Your task to perform on an android device: Open display settings Image 0: 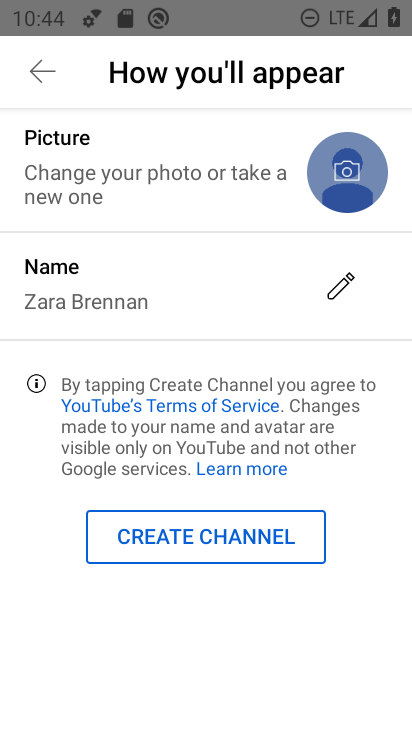
Step 0: press home button
Your task to perform on an android device: Open display settings Image 1: 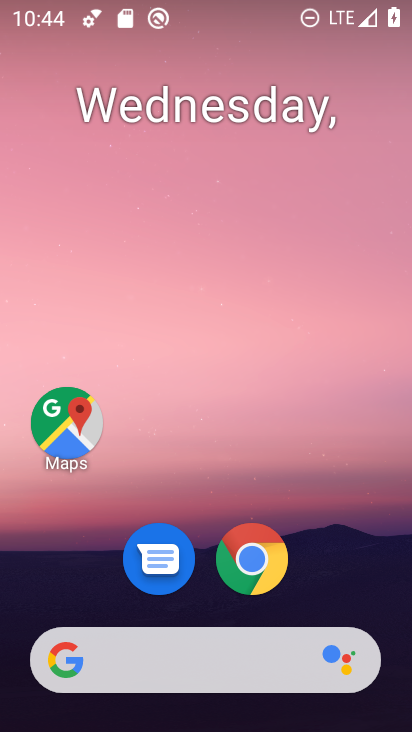
Step 1: drag from (370, 600) to (369, 196)
Your task to perform on an android device: Open display settings Image 2: 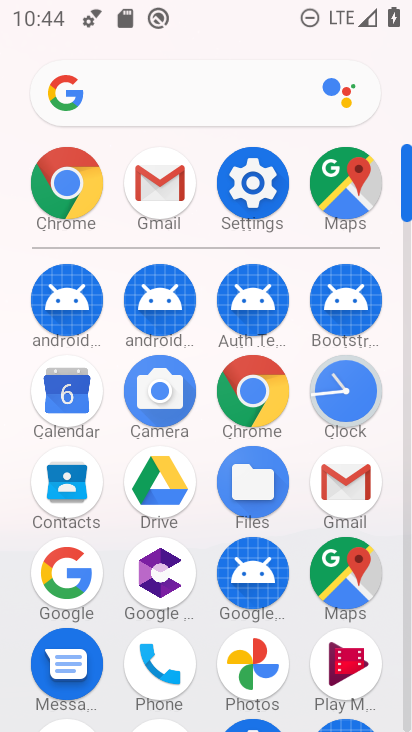
Step 2: click (275, 194)
Your task to perform on an android device: Open display settings Image 3: 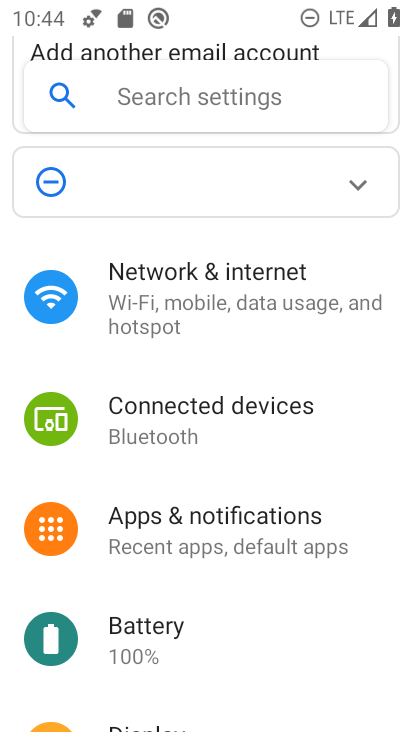
Step 3: drag from (338, 635) to (337, 554)
Your task to perform on an android device: Open display settings Image 4: 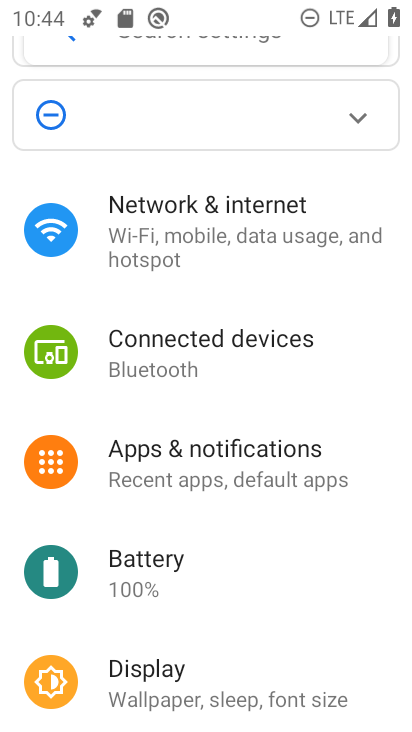
Step 4: drag from (354, 609) to (363, 440)
Your task to perform on an android device: Open display settings Image 5: 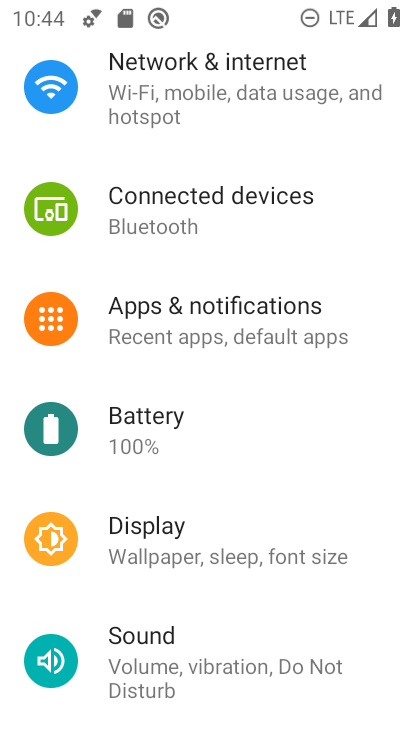
Step 5: click (283, 545)
Your task to perform on an android device: Open display settings Image 6: 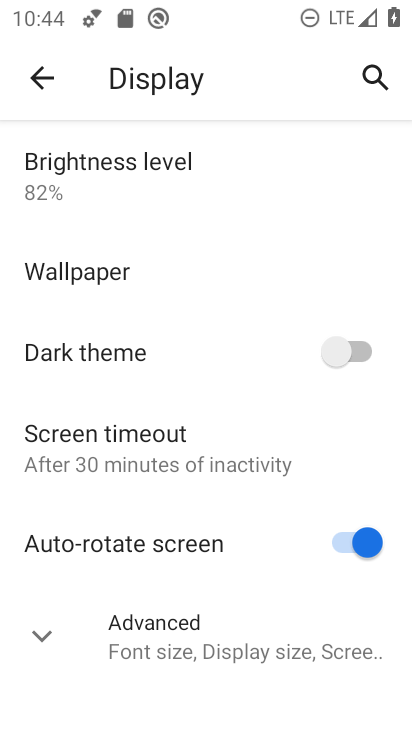
Step 6: click (255, 637)
Your task to perform on an android device: Open display settings Image 7: 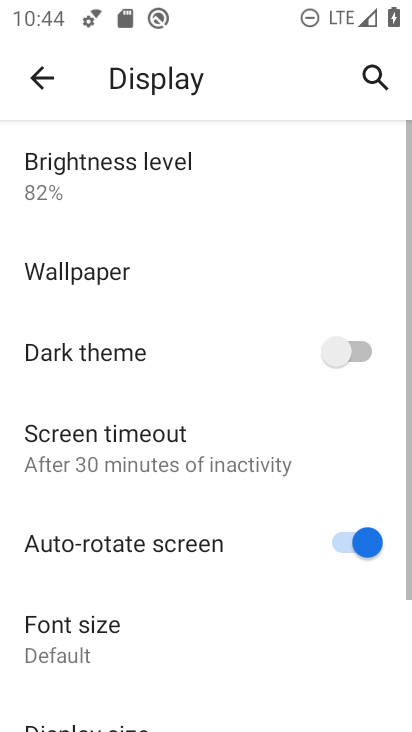
Step 7: task complete